Your task to perform on an android device: Open Android settings Image 0: 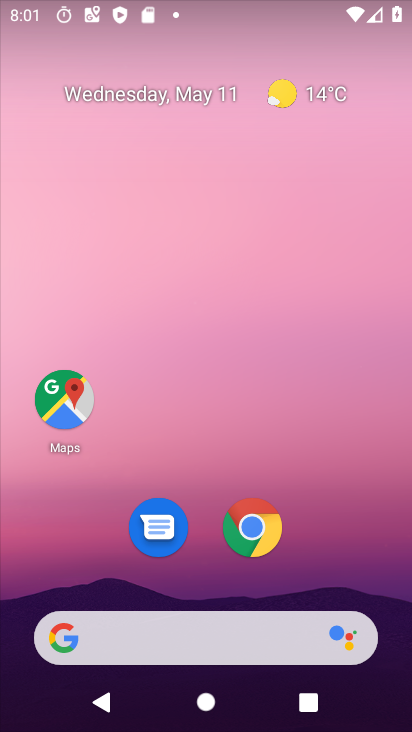
Step 0: drag from (278, 611) to (239, 157)
Your task to perform on an android device: Open Android settings Image 1: 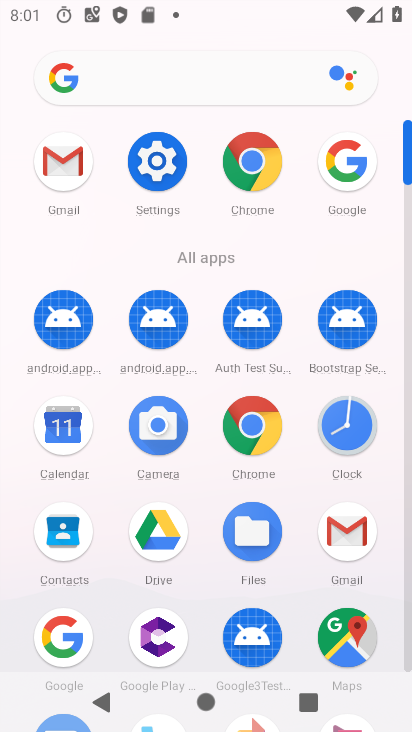
Step 1: click (170, 200)
Your task to perform on an android device: Open Android settings Image 2: 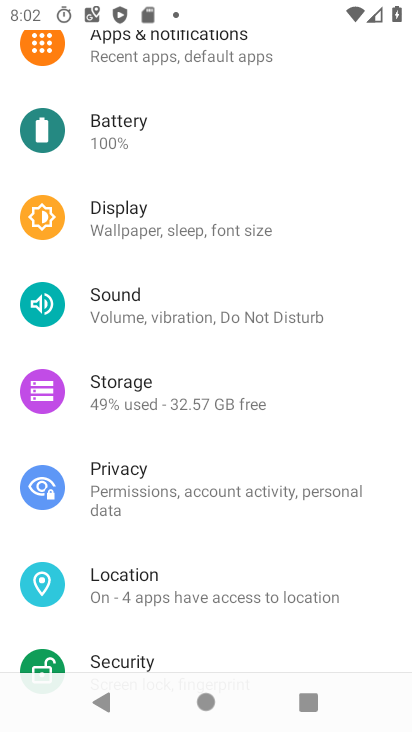
Step 2: drag from (158, 517) to (192, 218)
Your task to perform on an android device: Open Android settings Image 3: 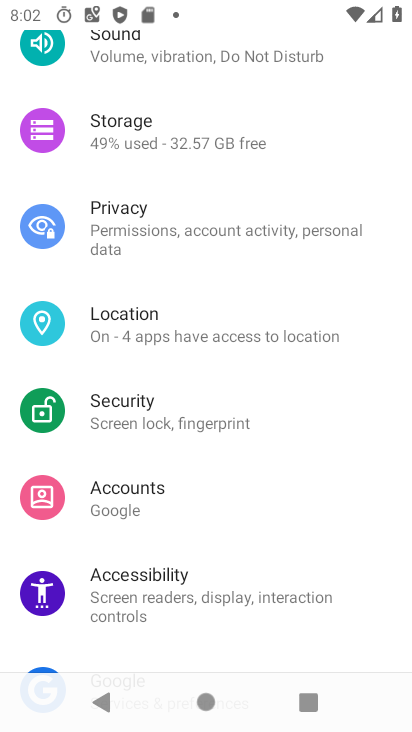
Step 3: drag from (164, 520) to (209, 206)
Your task to perform on an android device: Open Android settings Image 4: 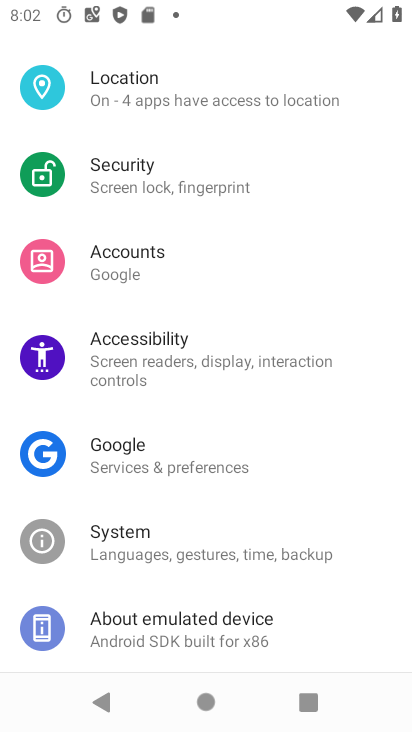
Step 4: drag from (174, 559) to (191, 259)
Your task to perform on an android device: Open Android settings Image 5: 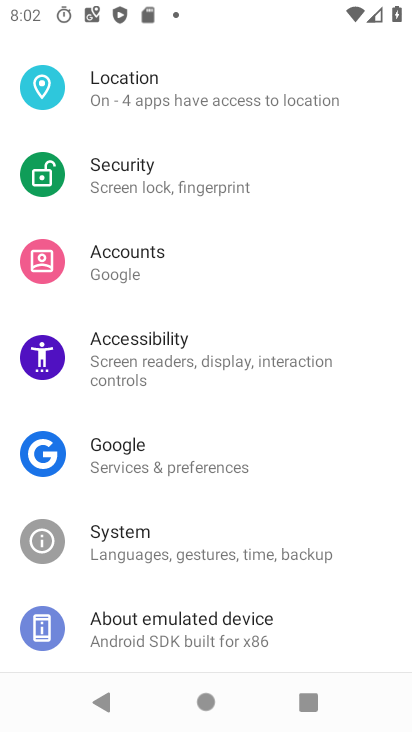
Step 5: click (214, 632)
Your task to perform on an android device: Open Android settings Image 6: 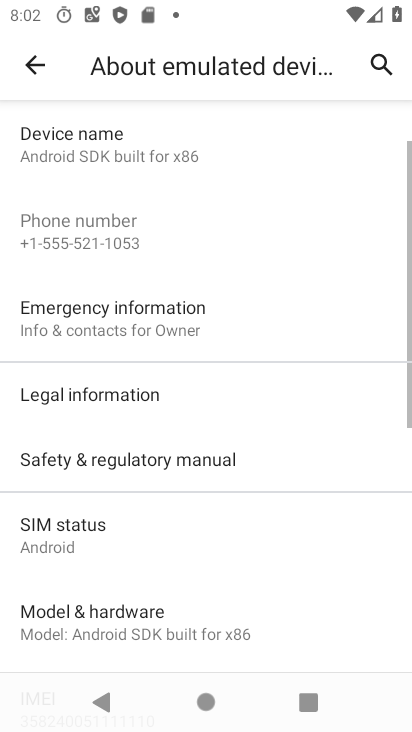
Step 6: drag from (189, 466) to (188, 291)
Your task to perform on an android device: Open Android settings Image 7: 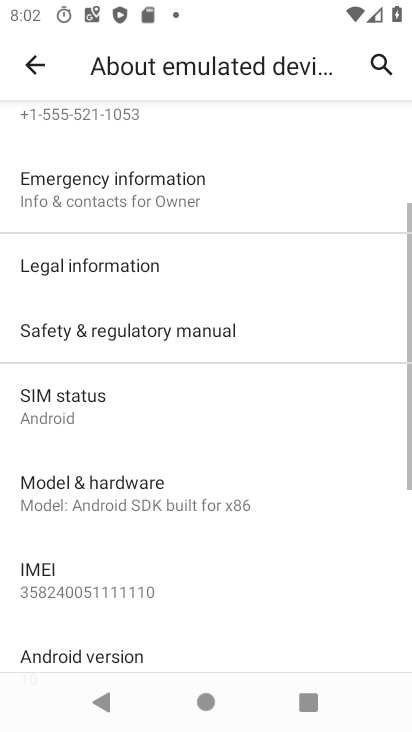
Step 7: drag from (172, 550) to (180, 327)
Your task to perform on an android device: Open Android settings Image 8: 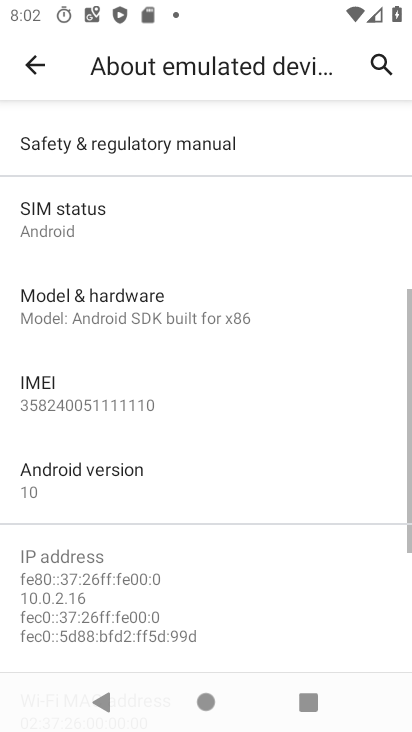
Step 8: click (167, 481)
Your task to perform on an android device: Open Android settings Image 9: 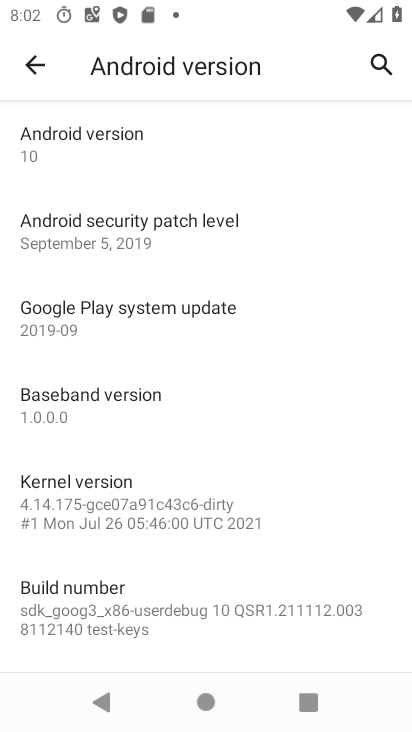
Step 9: task complete